Your task to perform on an android device: Search for razer blade on walmart, select the first entry, add it to the cart, then select checkout. Image 0: 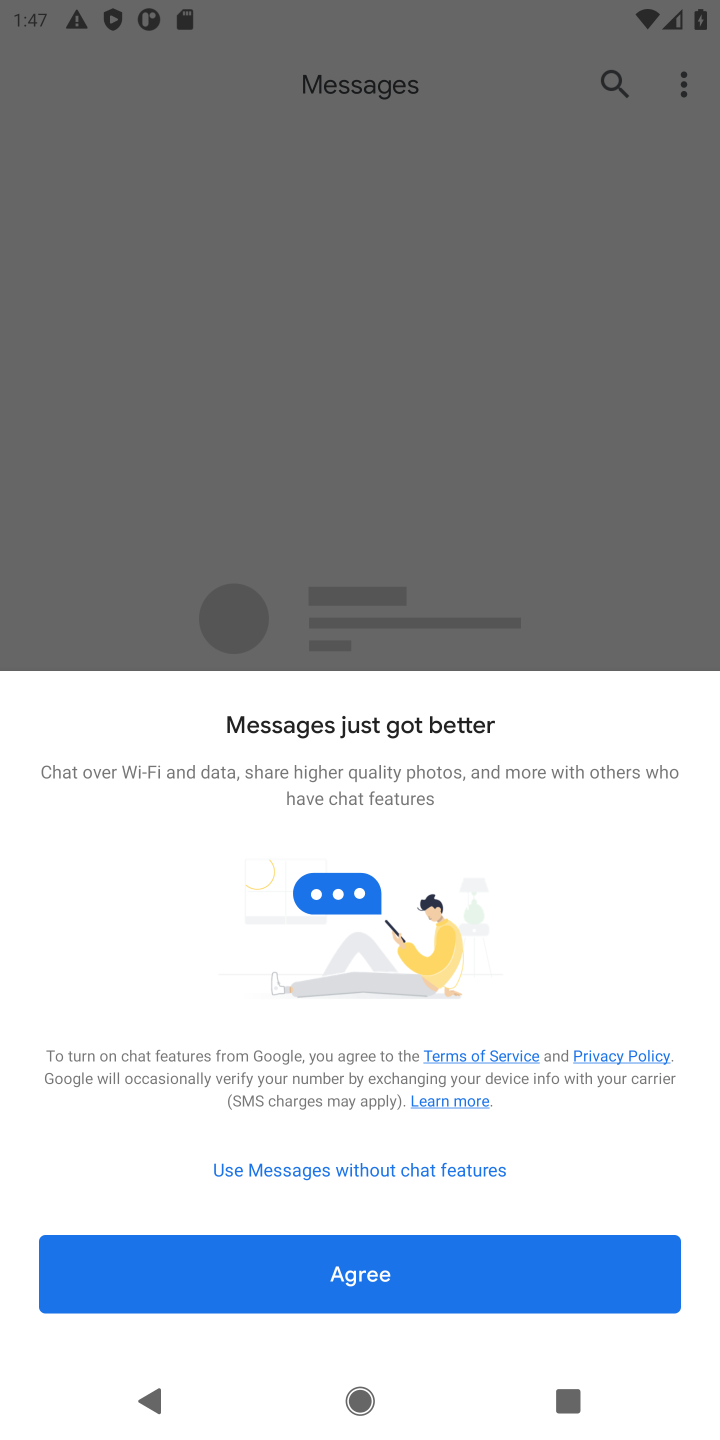
Step 0: press home button
Your task to perform on an android device: Search for razer blade on walmart, select the first entry, add it to the cart, then select checkout. Image 1: 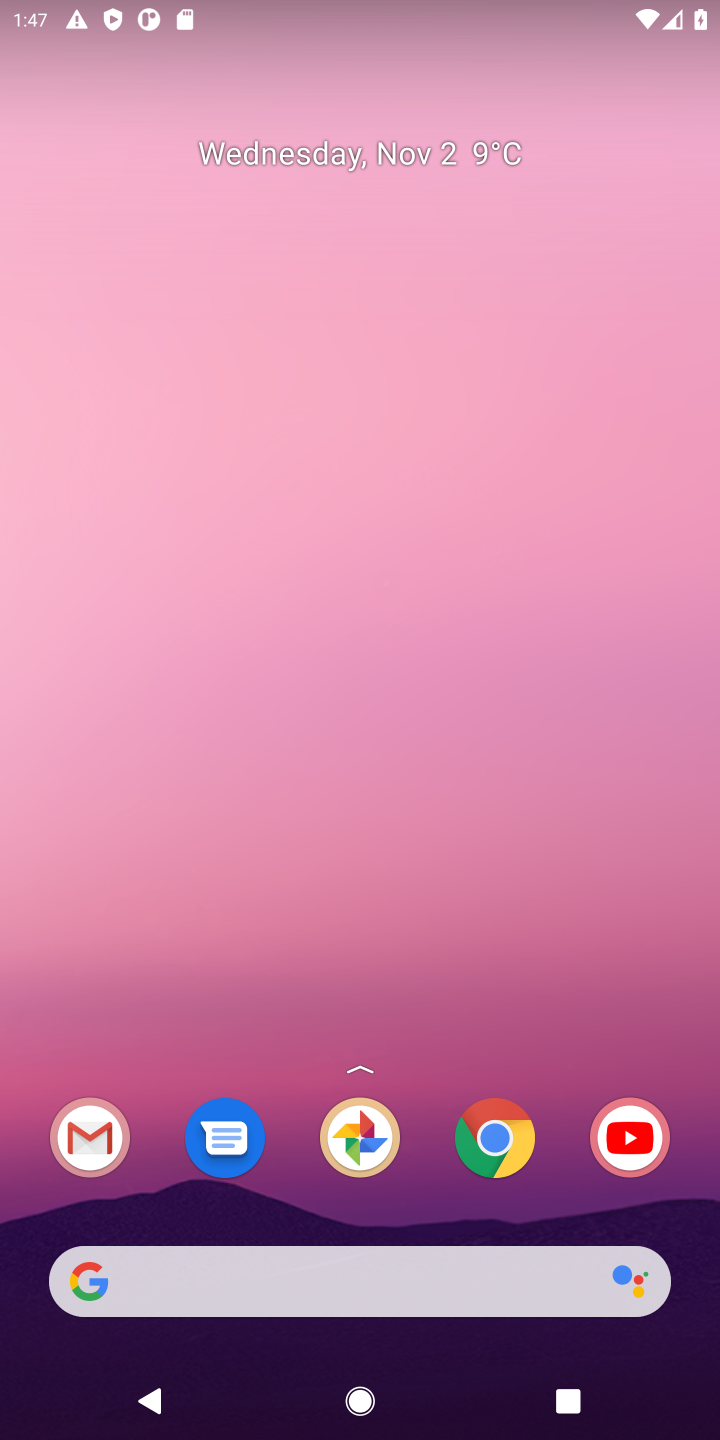
Step 1: click (484, 1129)
Your task to perform on an android device: Search for razer blade on walmart, select the first entry, add it to the cart, then select checkout. Image 2: 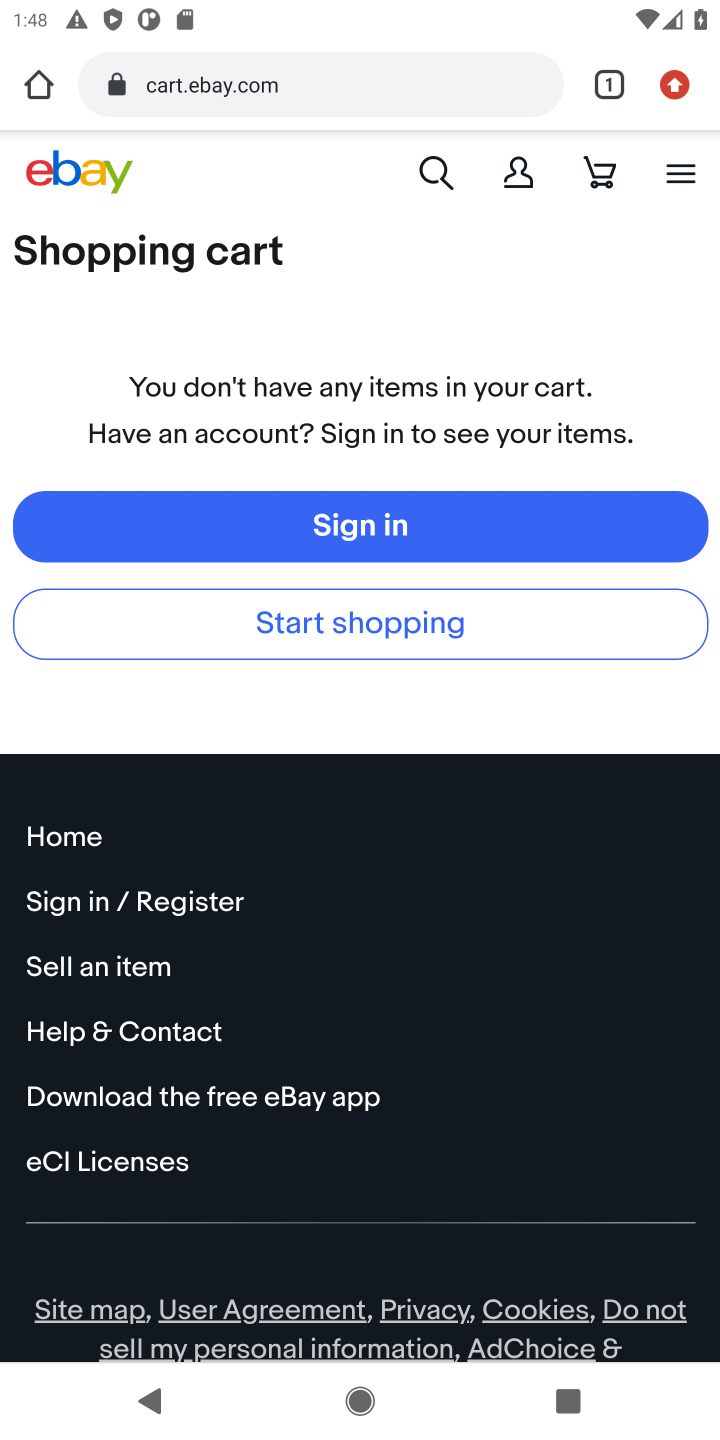
Step 2: click (200, 69)
Your task to perform on an android device: Search for razer blade on walmart, select the first entry, add it to the cart, then select checkout. Image 3: 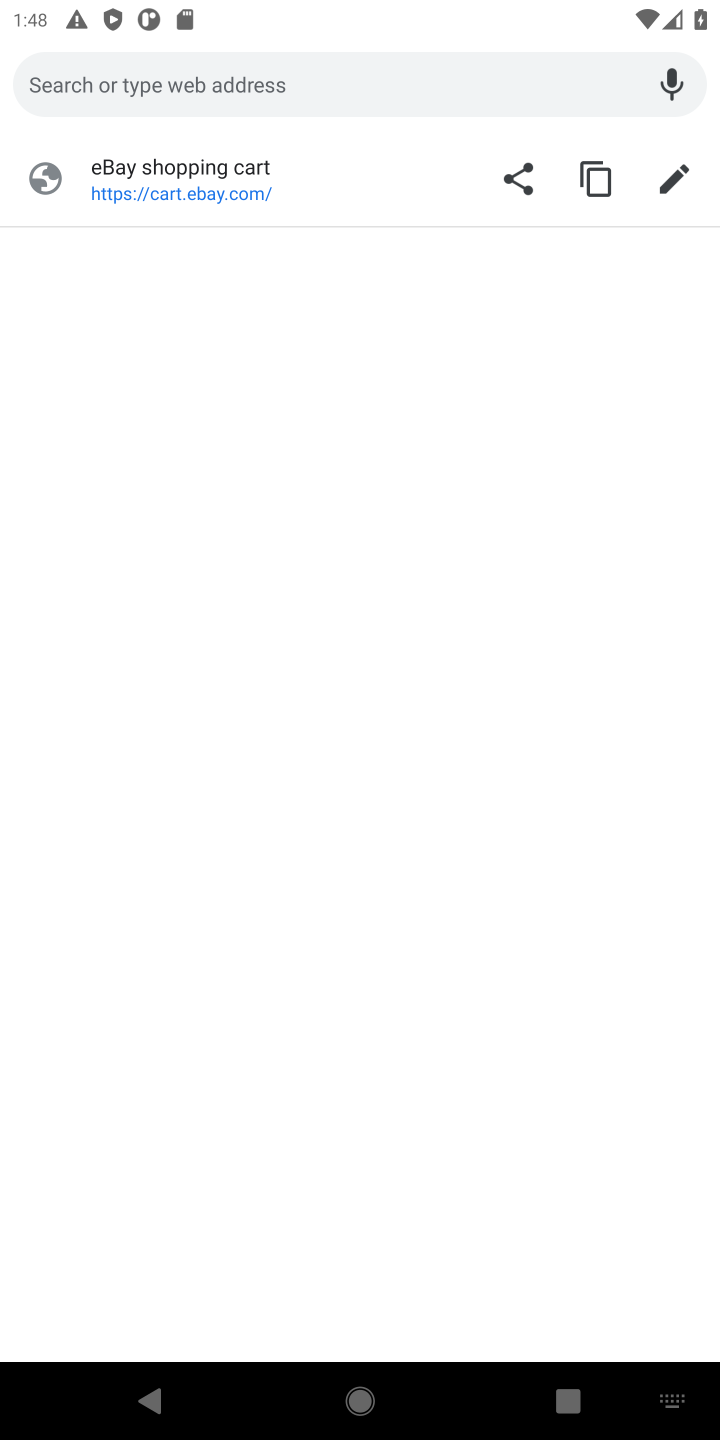
Step 3: type "walmart"
Your task to perform on an android device: Search for razer blade on walmart, select the first entry, add it to the cart, then select checkout. Image 4: 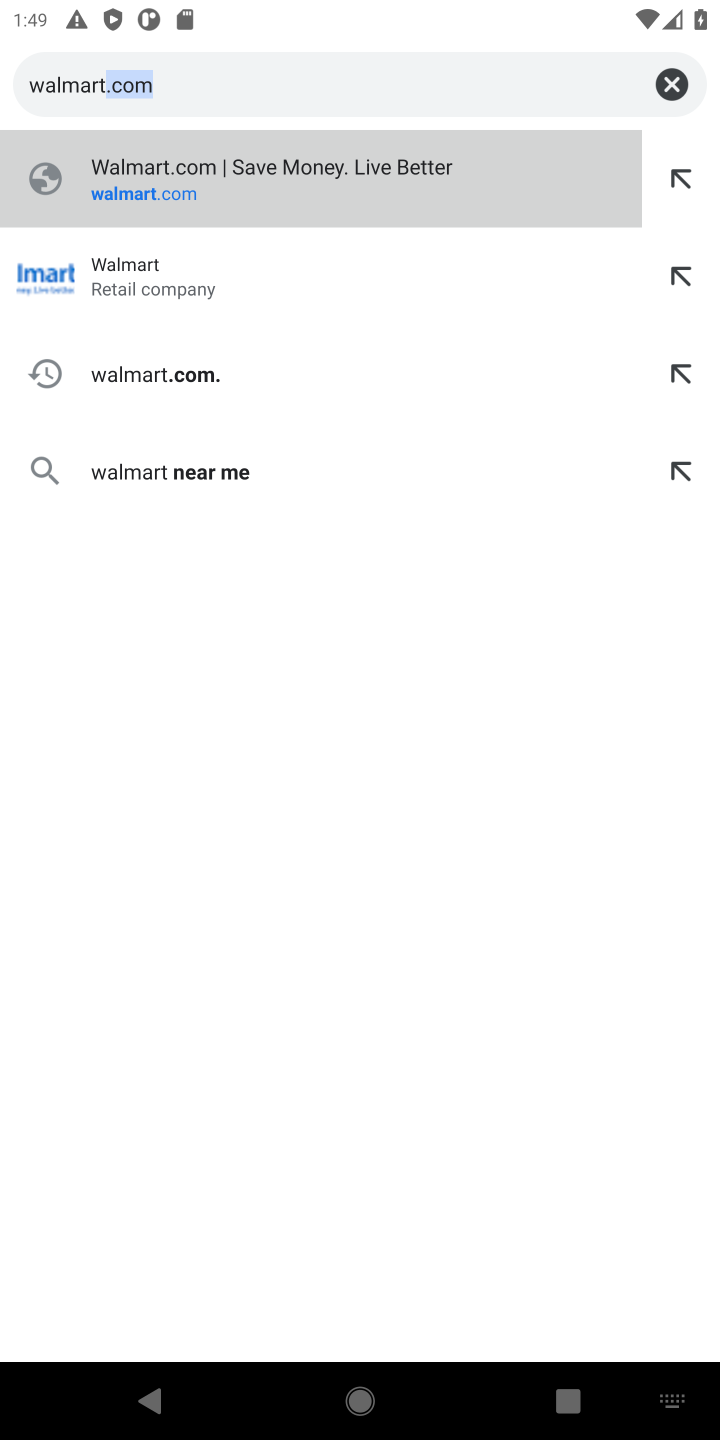
Step 4: click (159, 287)
Your task to perform on an android device: Search for razer blade on walmart, select the first entry, add it to the cart, then select checkout. Image 5: 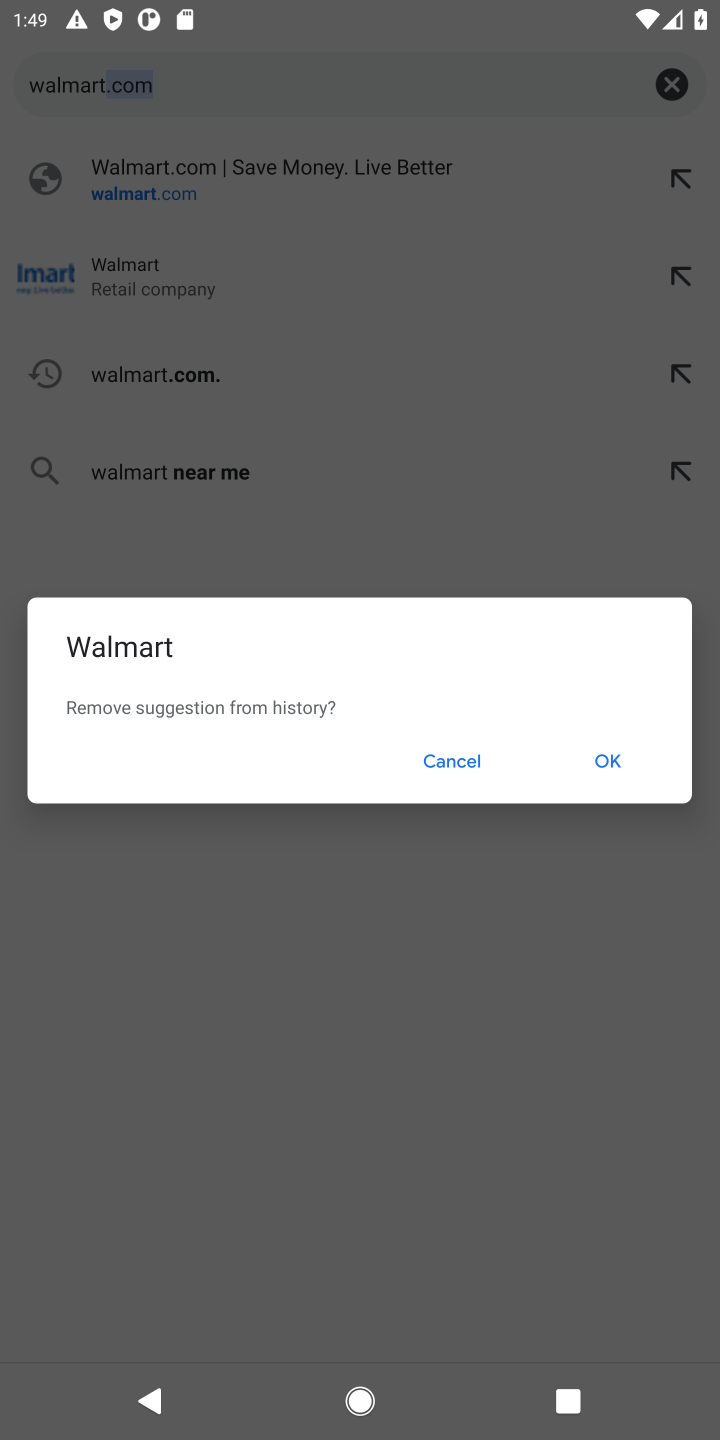
Step 5: click (599, 758)
Your task to perform on an android device: Search for razer blade on walmart, select the first entry, add it to the cart, then select checkout. Image 6: 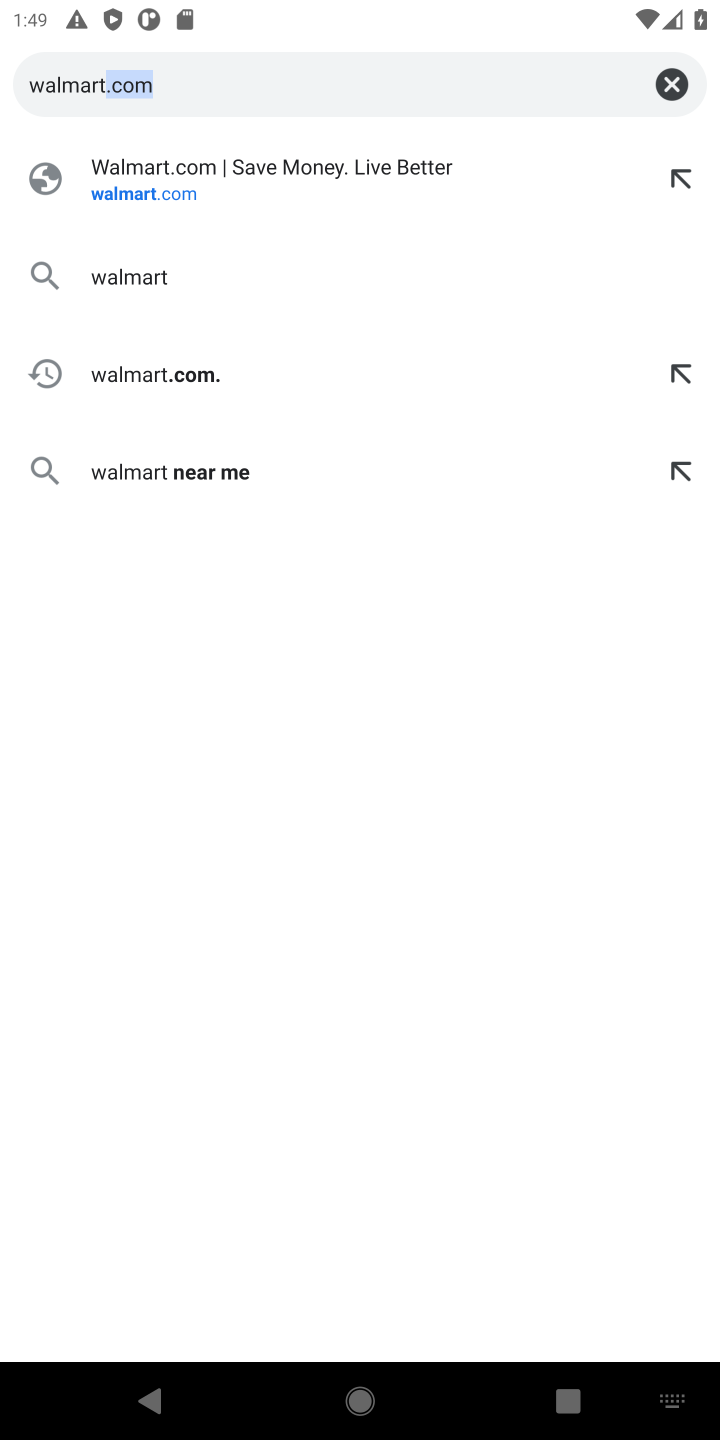
Step 6: click (206, 186)
Your task to perform on an android device: Search for razer blade on walmart, select the first entry, add it to the cart, then select checkout. Image 7: 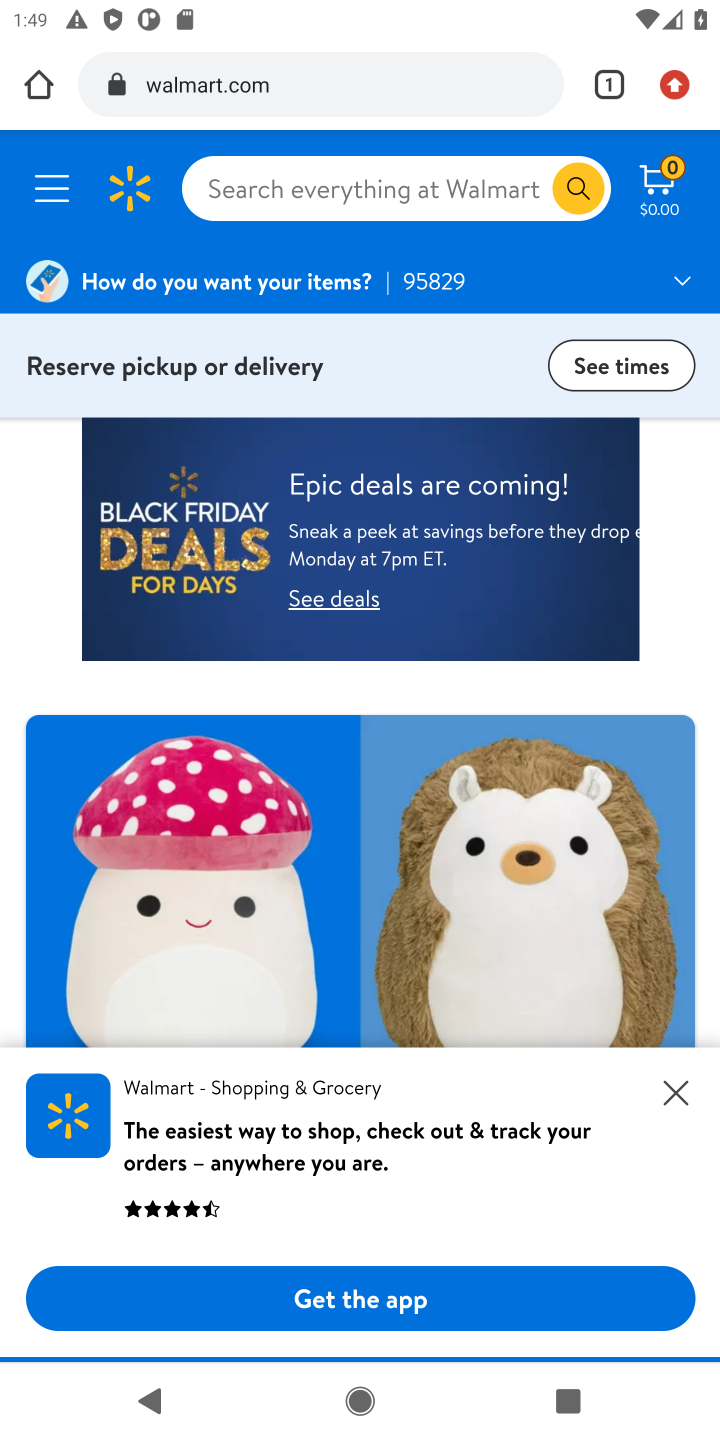
Step 7: click (417, 203)
Your task to perform on an android device: Search for razer blade on walmart, select the first entry, add it to the cart, then select checkout. Image 8: 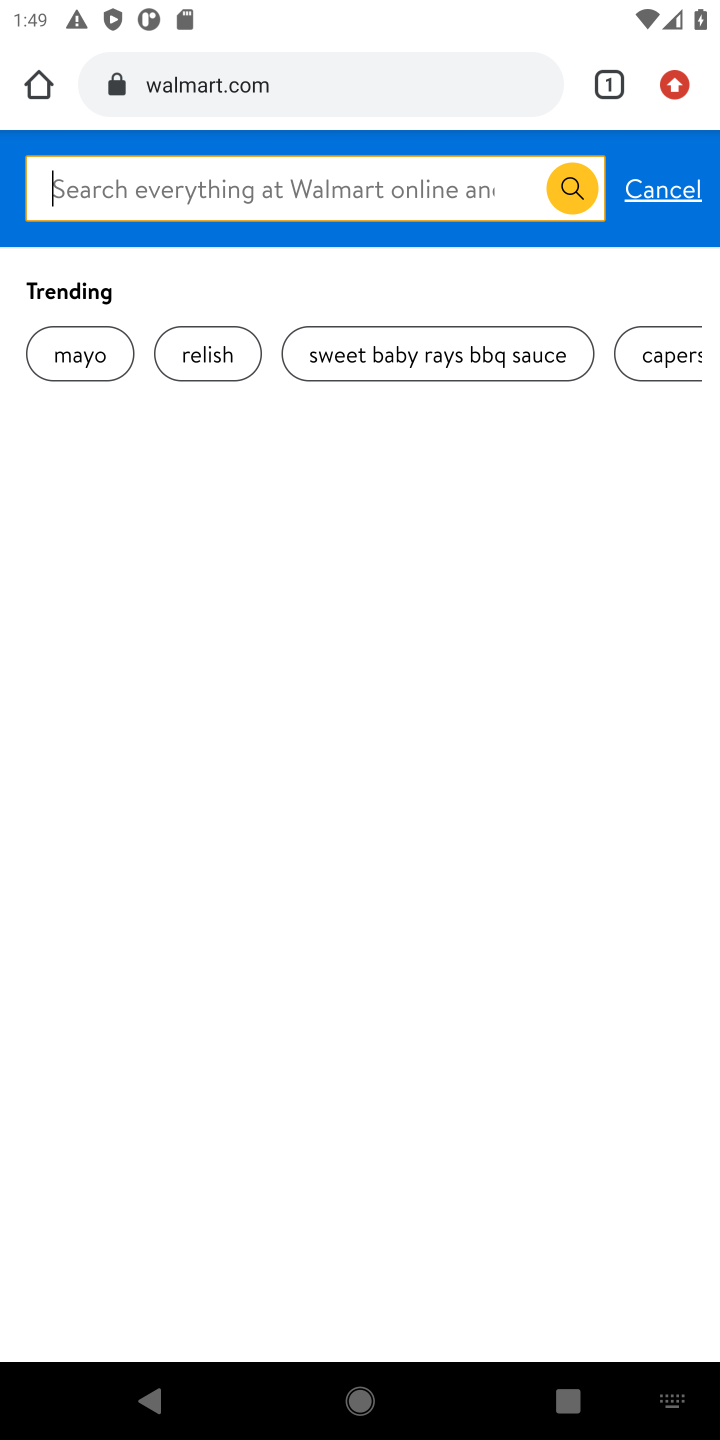
Step 8: type "razer blade"
Your task to perform on an android device: Search for razer blade on walmart, select the first entry, add it to the cart, then select checkout. Image 9: 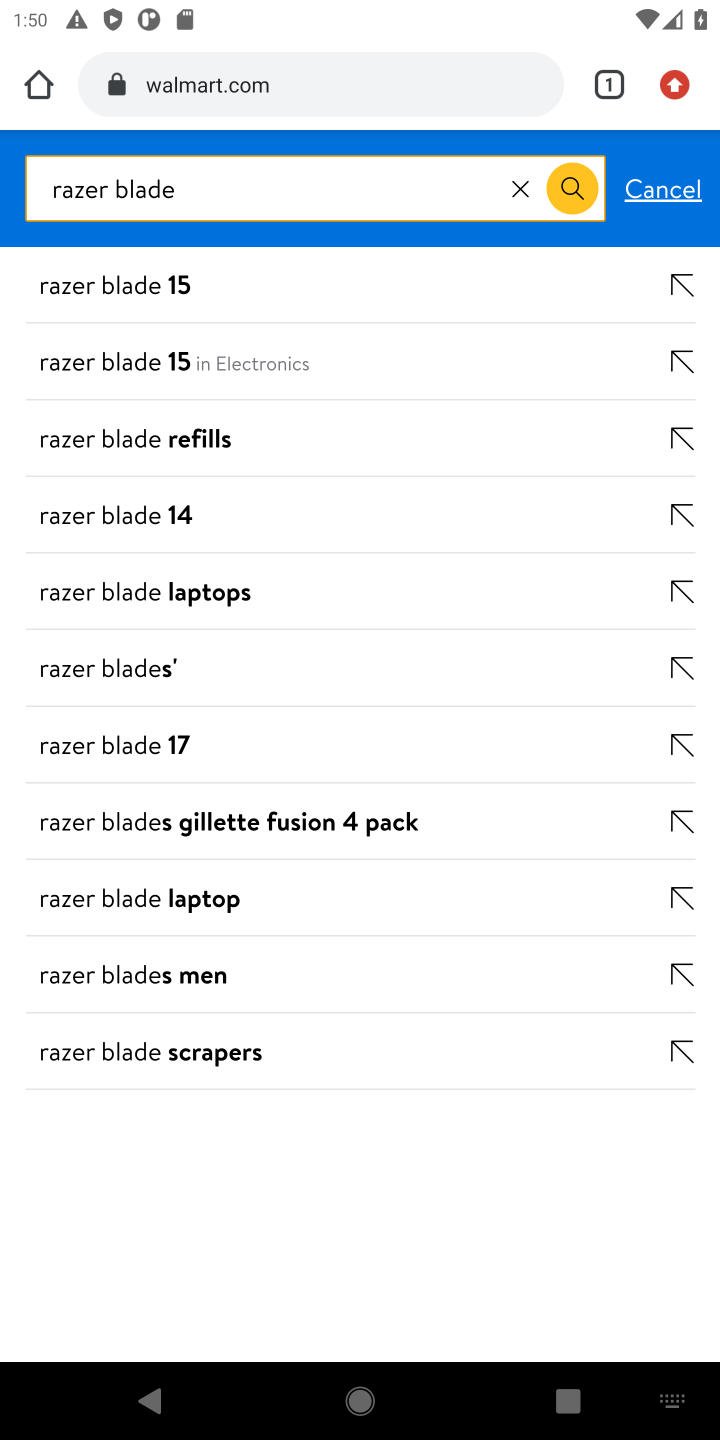
Step 9: click (564, 190)
Your task to perform on an android device: Search for razer blade on walmart, select the first entry, add it to the cart, then select checkout. Image 10: 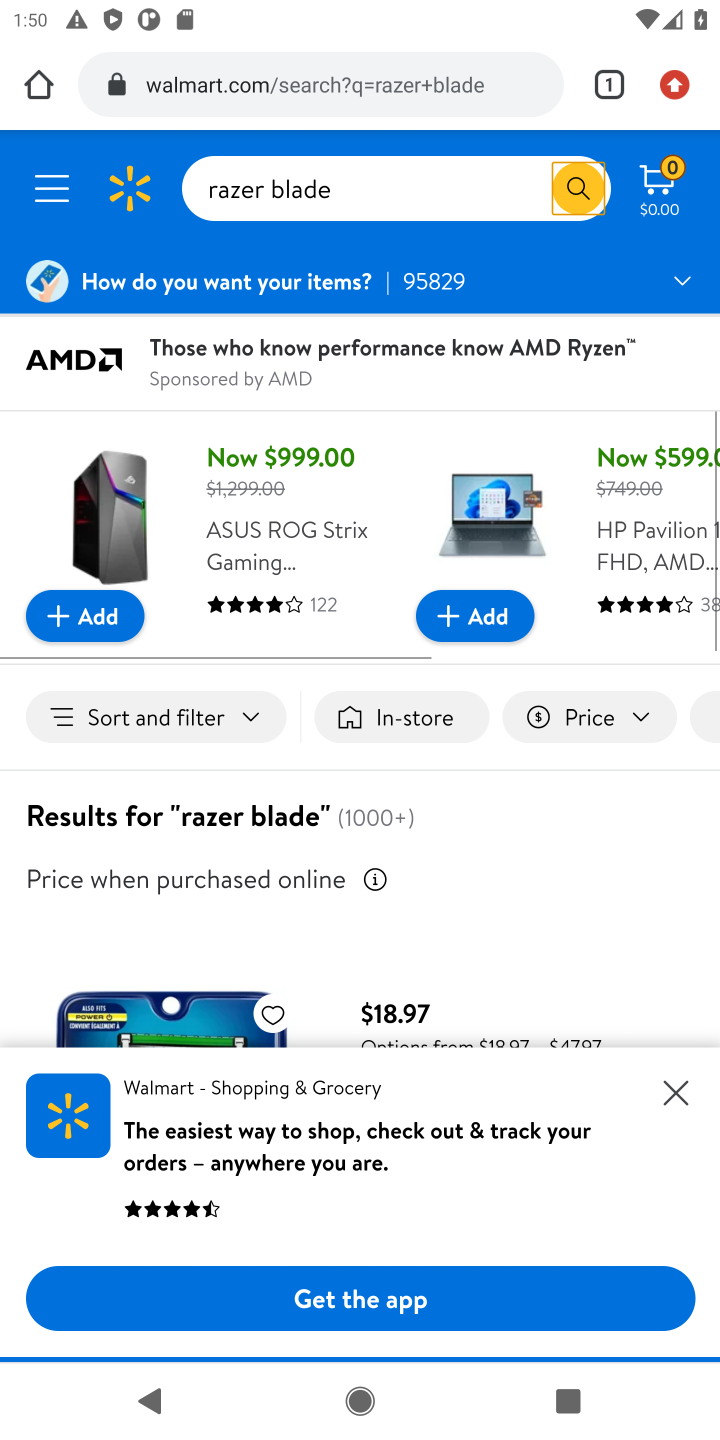
Step 10: click (695, 1093)
Your task to perform on an android device: Search for razer blade on walmart, select the first entry, add it to the cart, then select checkout. Image 11: 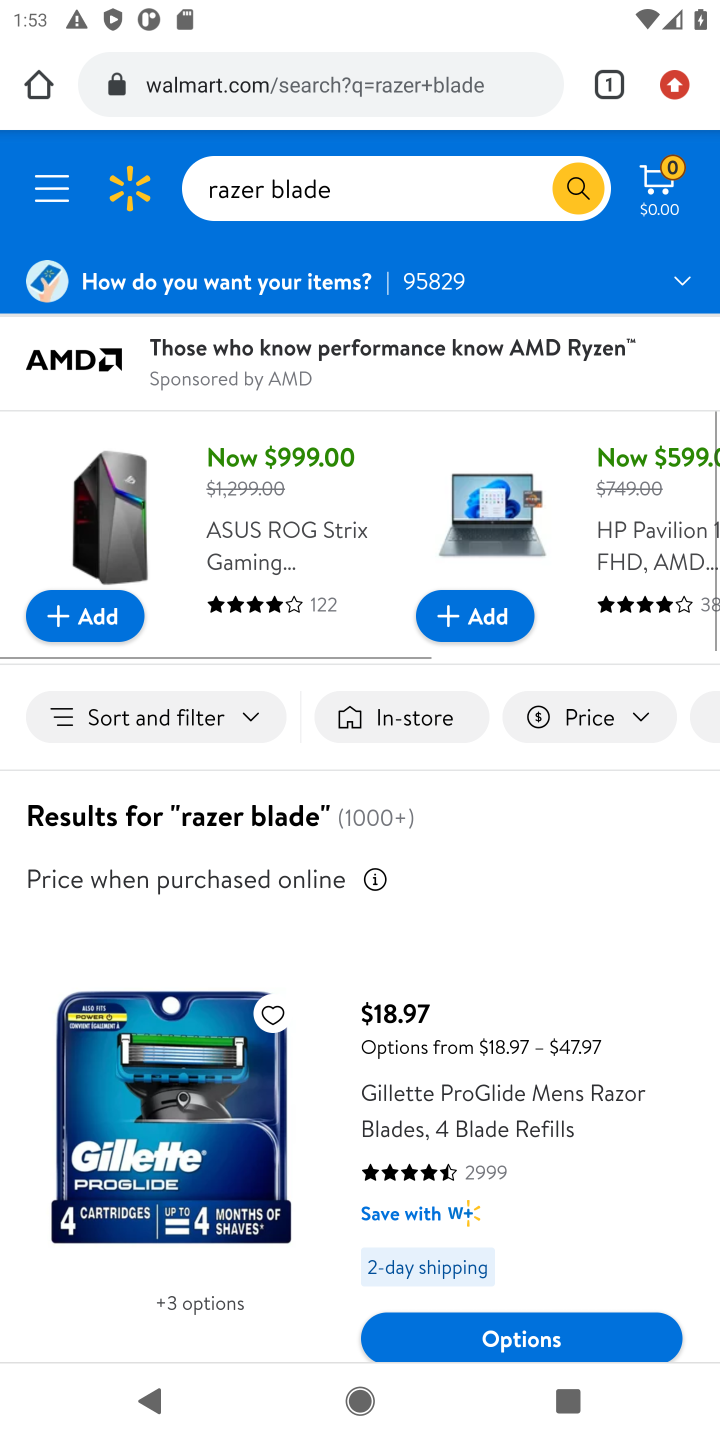
Step 11: task complete